Your task to perform on an android device: Go to settings Image 0: 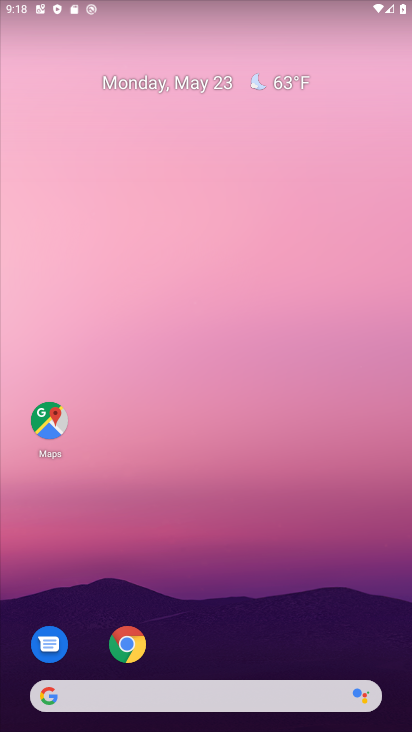
Step 0: drag from (241, 639) to (217, 157)
Your task to perform on an android device: Go to settings Image 1: 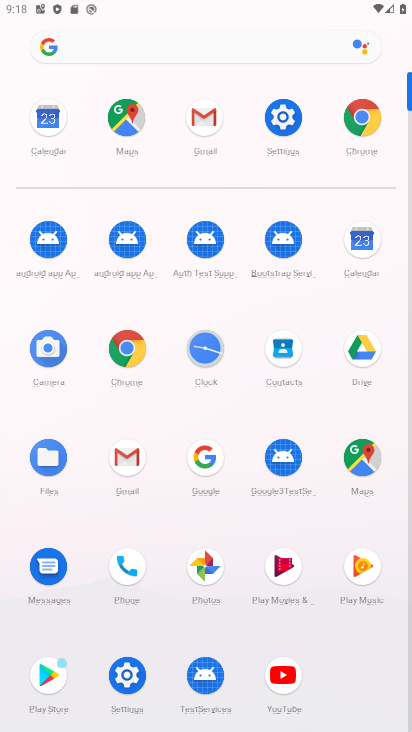
Step 1: click (126, 670)
Your task to perform on an android device: Go to settings Image 2: 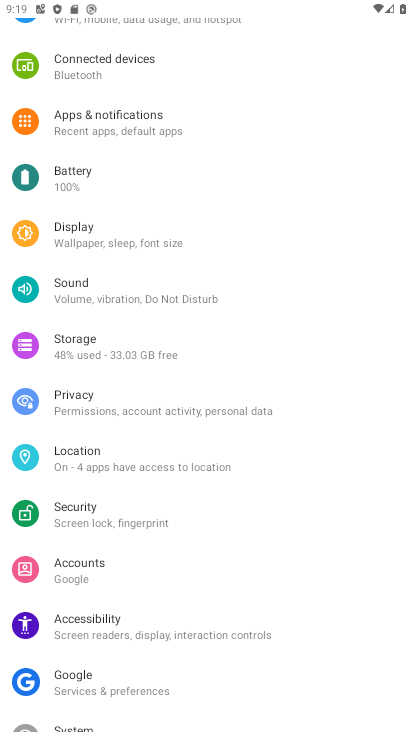
Step 2: task complete